Your task to perform on an android device: Open the web browser Image 0: 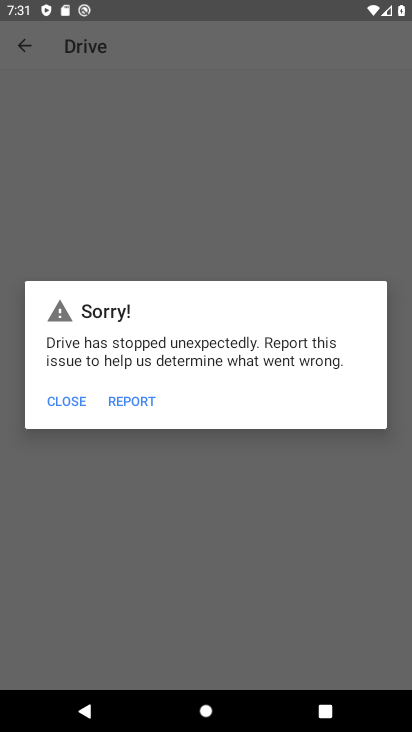
Step 0: press home button
Your task to perform on an android device: Open the web browser Image 1: 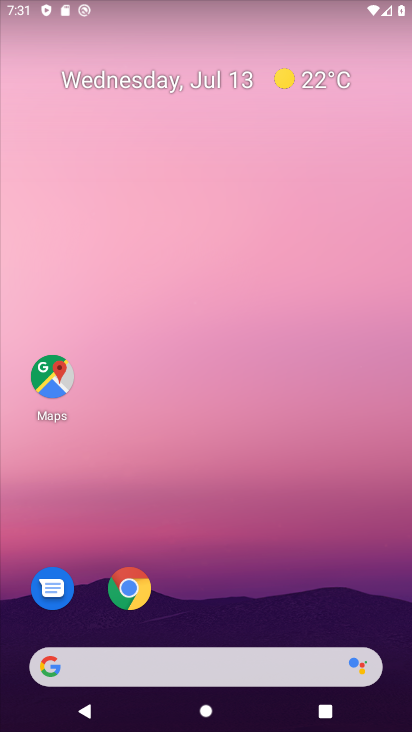
Step 1: drag from (165, 612) to (180, 260)
Your task to perform on an android device: Open the web browser Image 2: 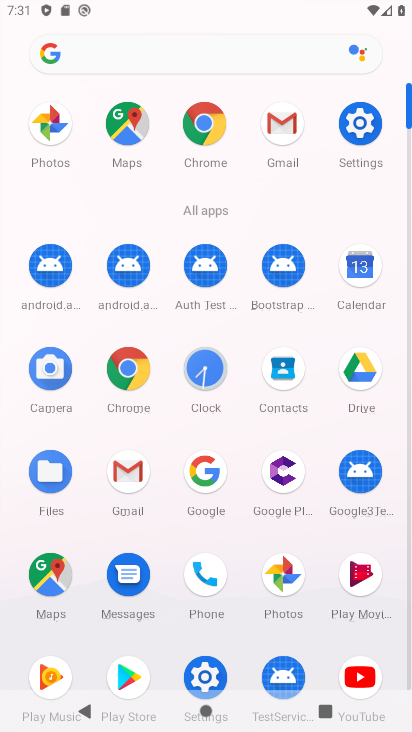
Step 2: click (196, 118)
Your task to perform on an android device: Open the web browser Image 3: 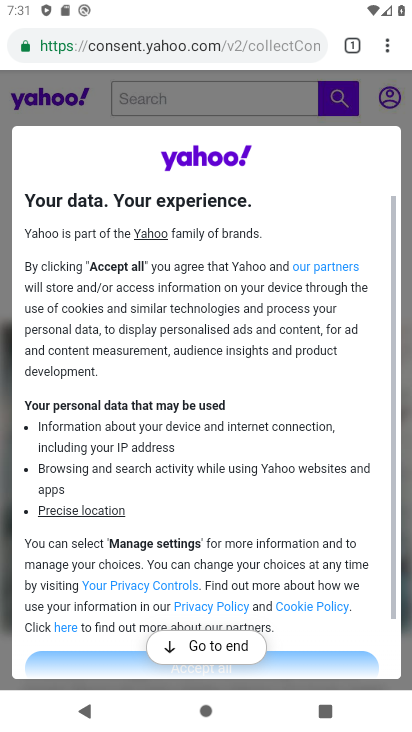
Step 3: task complete